Your task to perform on an android device: turn off translation in the chrome app Image 0: 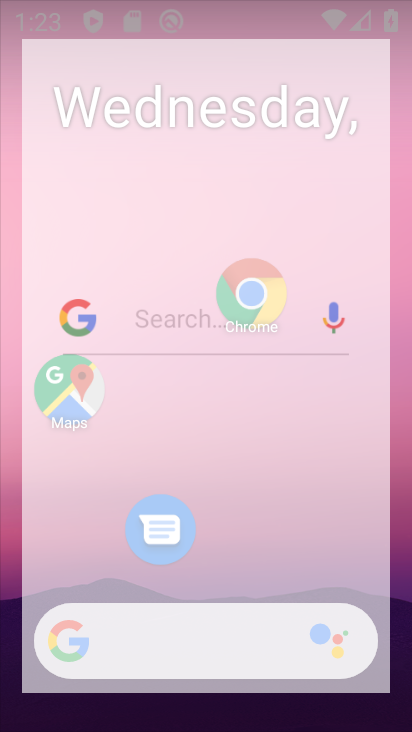
Step 0: drag from (280, 487) to (294, 200)
Your task to perform on an android device: turn off translation in the chrome app Image 1: 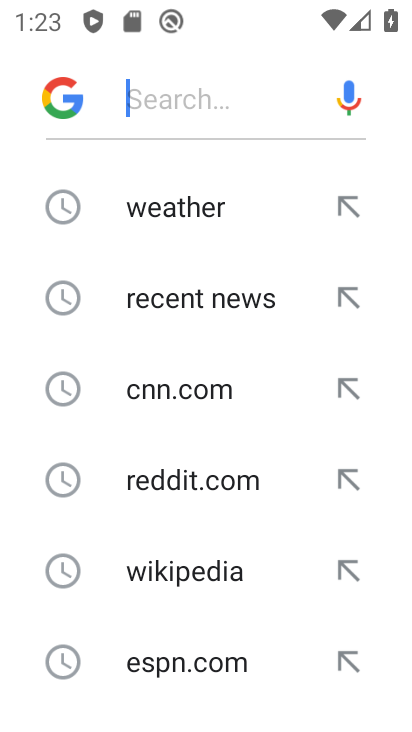
Step 1: click (294, 200)
Your task to perform on an android device: turn off translation in the chrome app Image 2: 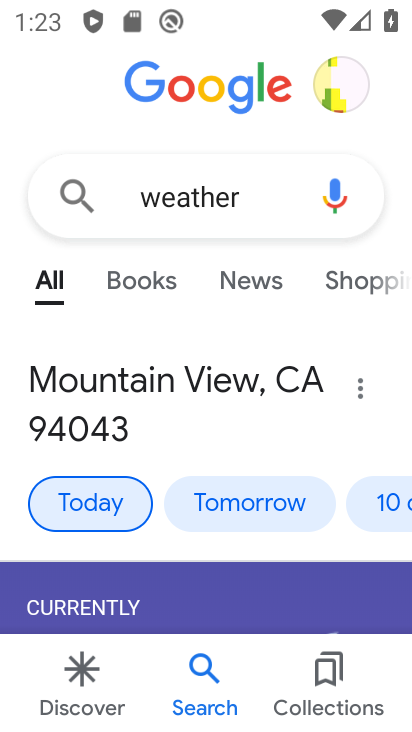
Step 2: press home button
Your task to perform on an android device: turn off translation in the chrome app Image 3: 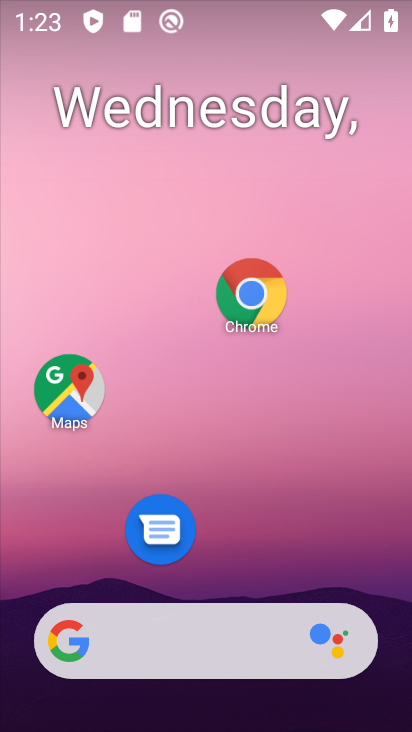
Step 3: click (249, 322)
Your task to perform on an android device: turn off translation in the chrome app Image 4: 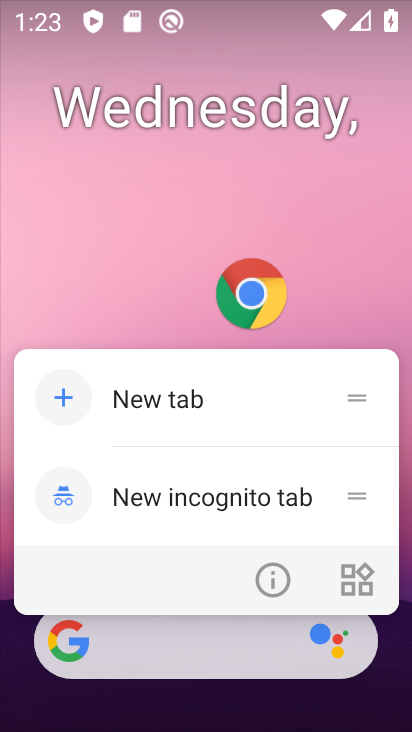
Step 4: click (247, 293)
Your task to perform on an android device: turn off translation in the chrome app Image 5: 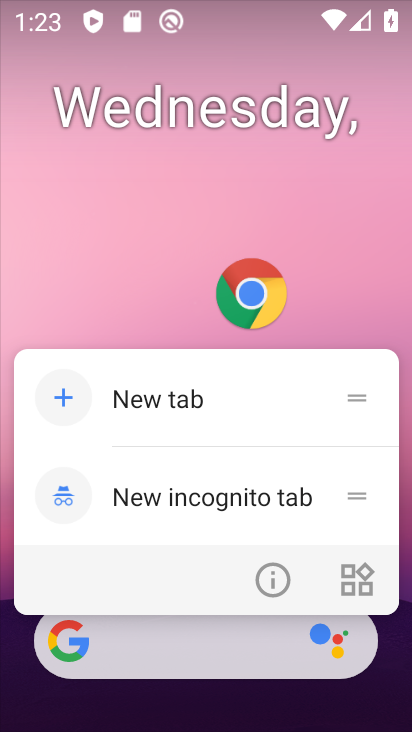
Step 5: click (248, 309)
Your task to perform on an android device: turn off translation in the chrome app Image 6: 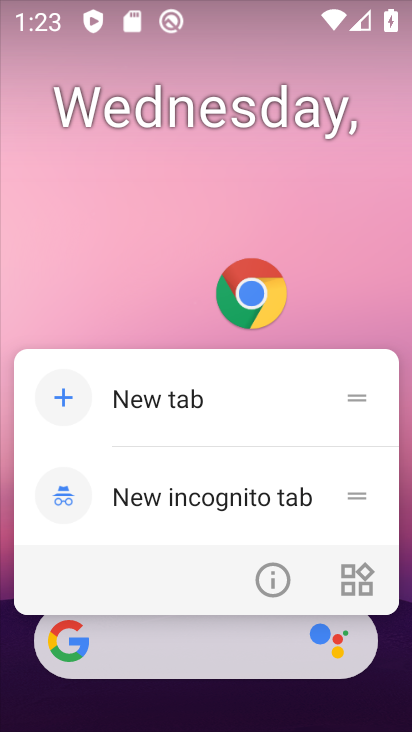
Step 6: click (277, 277)
Your task to perform on an android device: turn off translation in the chrome app Image 7: 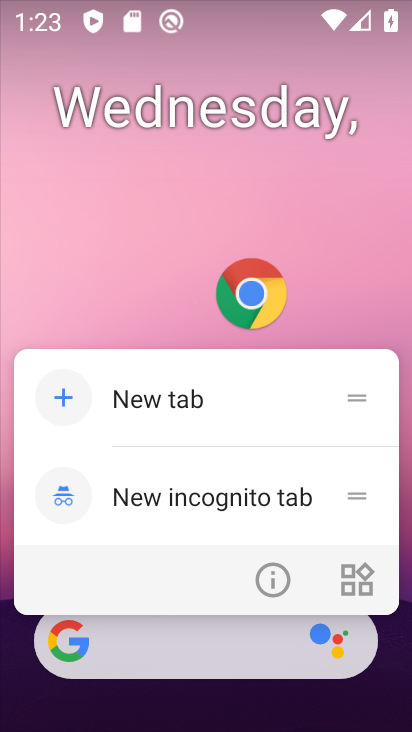
Step 7: click (269, 303)
Your task to perform on an android device: turn off translation in the chrome app Image 8: 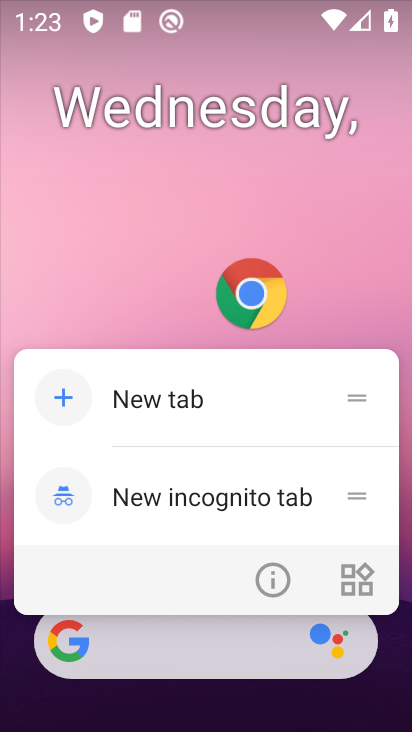
Step 8: click (233, 309)
Your task to perform on an android device: turn off translation in the chrome app Image 9: 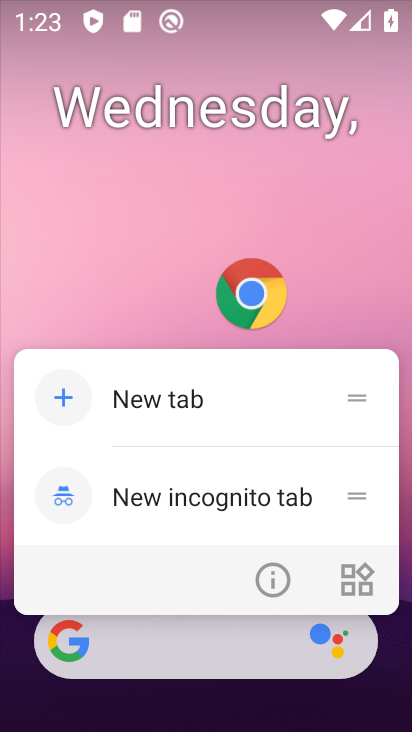
Step 9: click (245, 276)
Your task to perform on an android device: turn off translation in the chrome app Image 10: 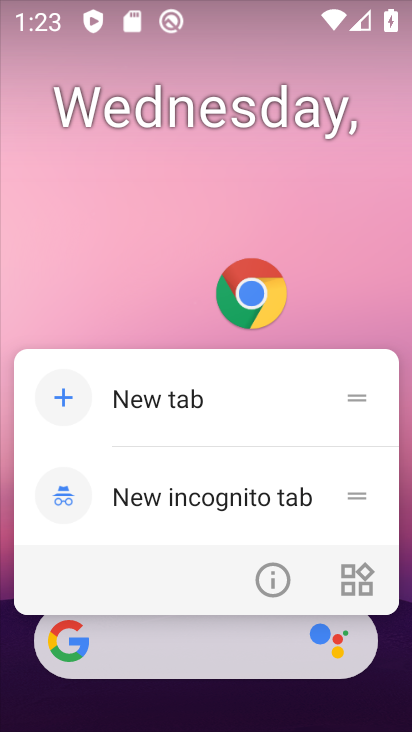
Step 10: click (230, 317)
Your task to perform on an android device: turn off translation in the chrome app Image 11: 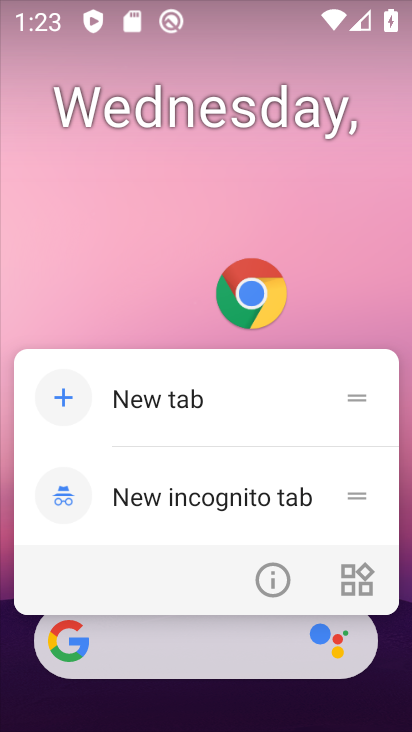
Step 11: click (265, 321)
Your task to perform on an android device: turn off translation in the chrome app Image 12: 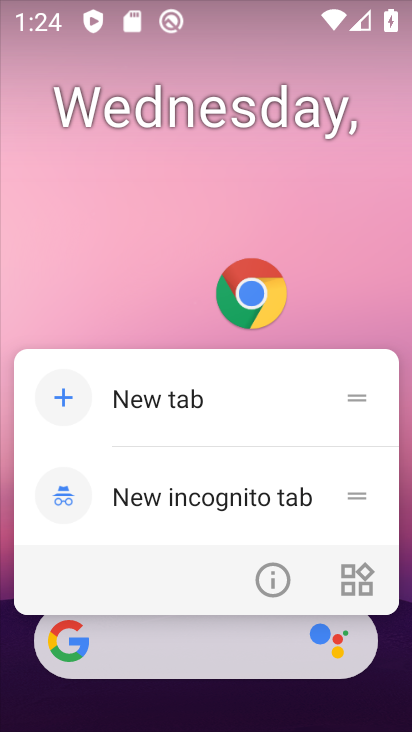
Step 12: task complete